Your task to perform on an android device: choose inbox layout in the gmail app Image 0: 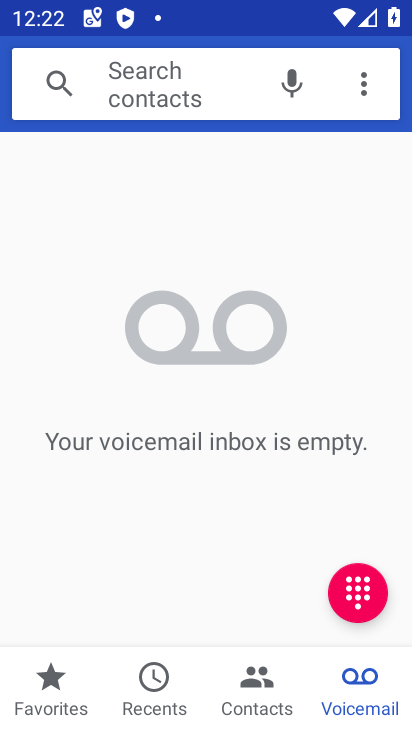
Step 0: press home button
Your task to perform on an android device: choose inbox layout in the gmail app Image 1: 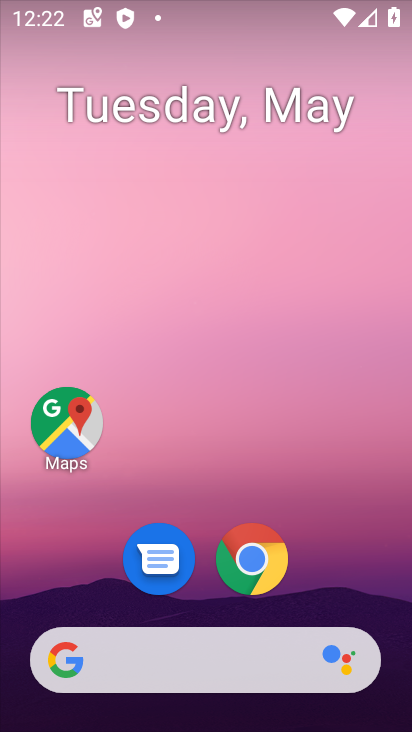
Step 1: drag from (341, 580) to (330, 127)
Your task to perform on an android device: choose inbox layout in the gmail app Image 2: 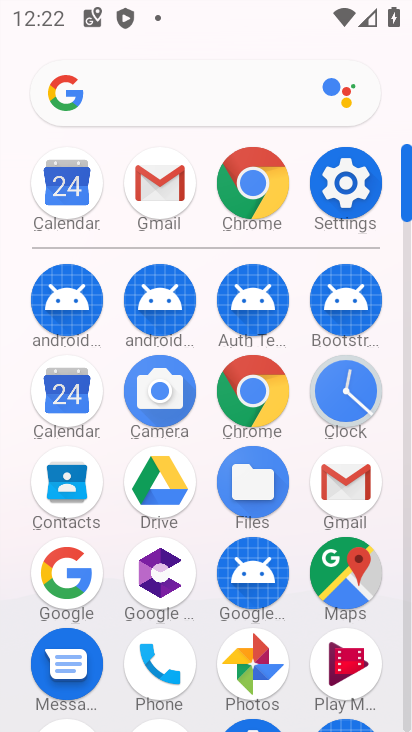
Step 2: click (152, 181)
Your task to perform on an android device: choose inbox layout in the gmail app Image 3: 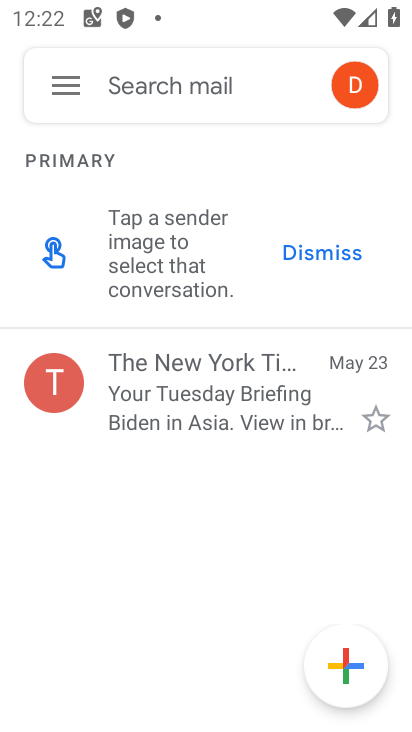
Step 3: click (73, 86)
Your task to perform on an android device: choose inbox layout in the gmail app Image 4: 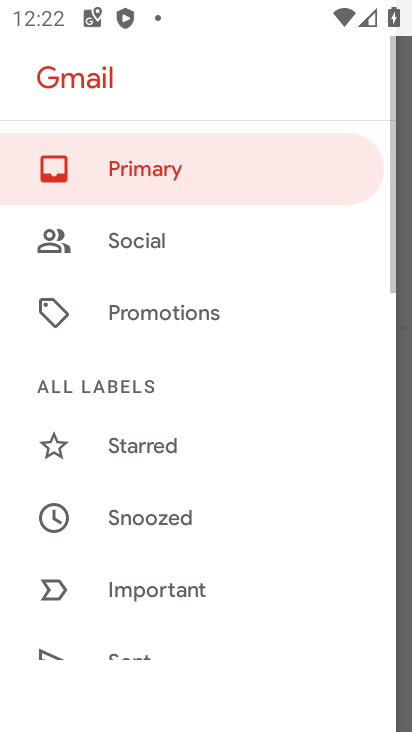
Step 4: task complete